Your task to perform on an android device: Show me popular games on the Play Store Image 0: 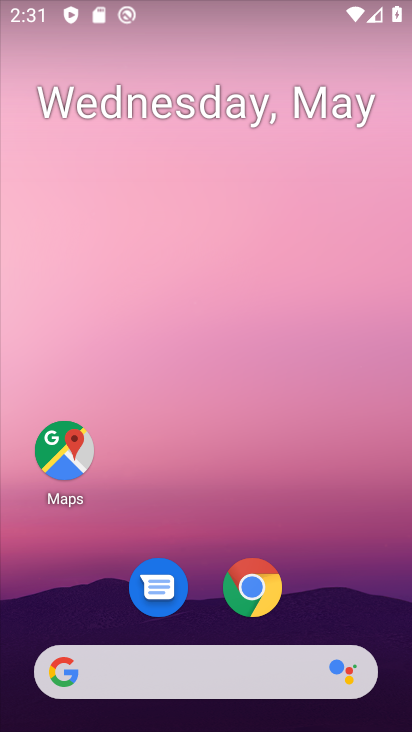
Step 0: drag from (206, 624) to (205, 24)
Your task to perform on an android device: Show me popular games on the Play Store Image 1: 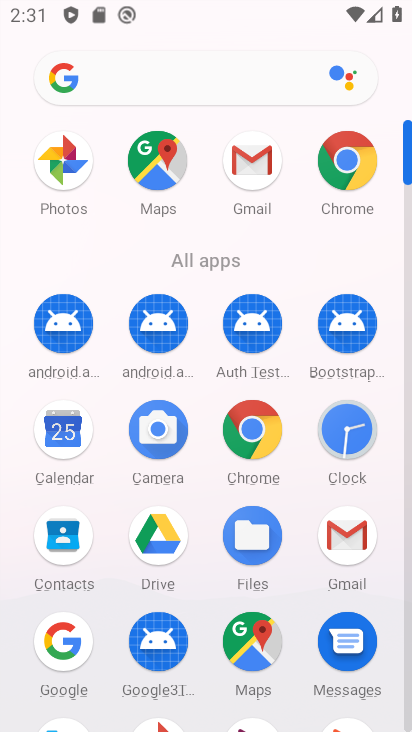
Step 1: drag from (192, 668) to (225, 3)
Your task to perform on an android device: Show me popular games on the Play Store Image 2: 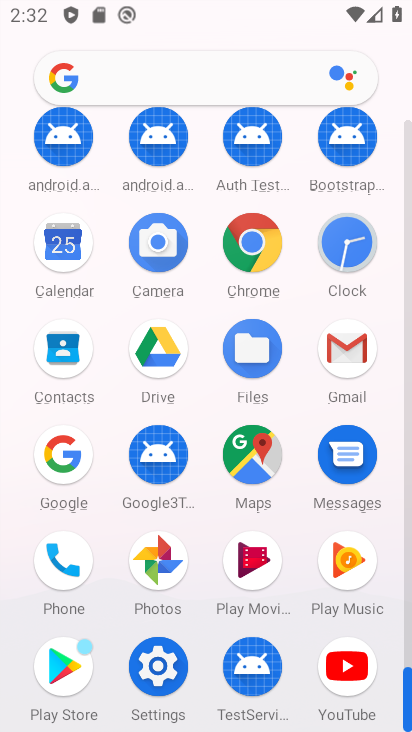
Step 2: click (45, 670)
Your task to perform on an android device: Show me popular games on the Play Store Image 3: 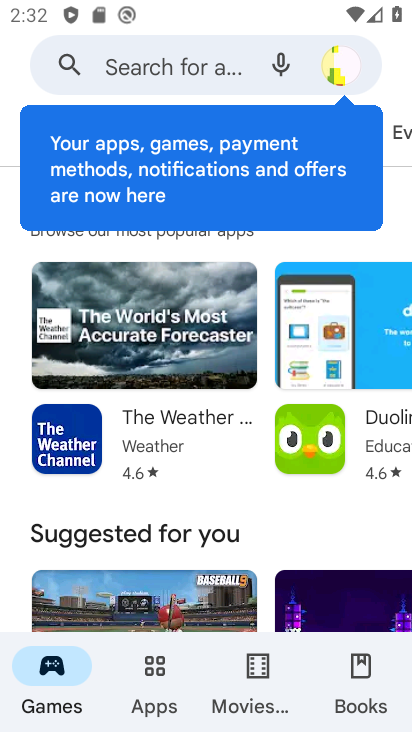
Step 3: click (185, 512)
Your task to perform on an android device: Show me popular games on the Play Store Image 4: 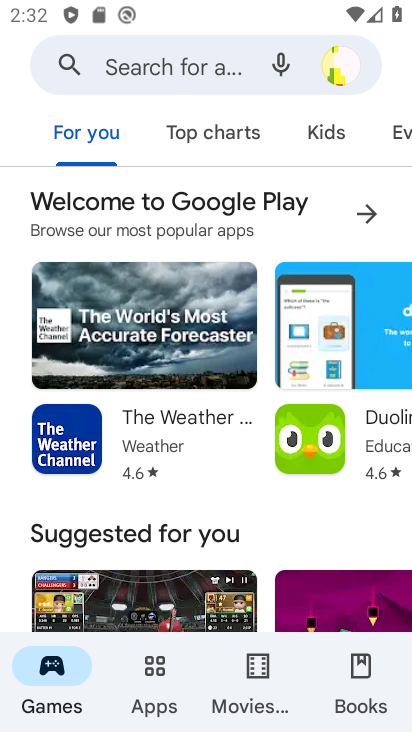
Step 4: click (234, 120)
Your task to perform on an android device: Show me popular games on the Play Store Image 5: 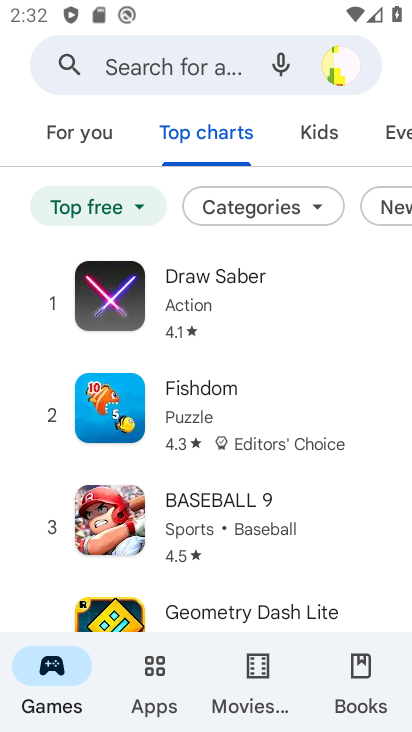
Step 5: task complete